Your task to perform on an android device: set default search engine in the chrome app Image 0: 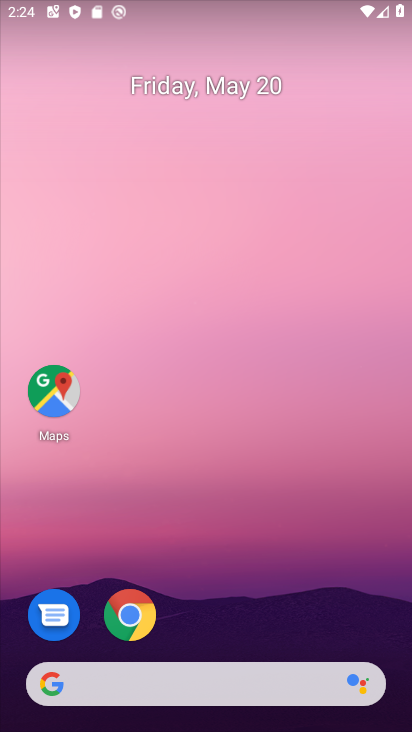
Step 0: drag from (280, 581) to (211, 221)
Your task to perform on an android device: set default search engine in the chrome app Image 1: 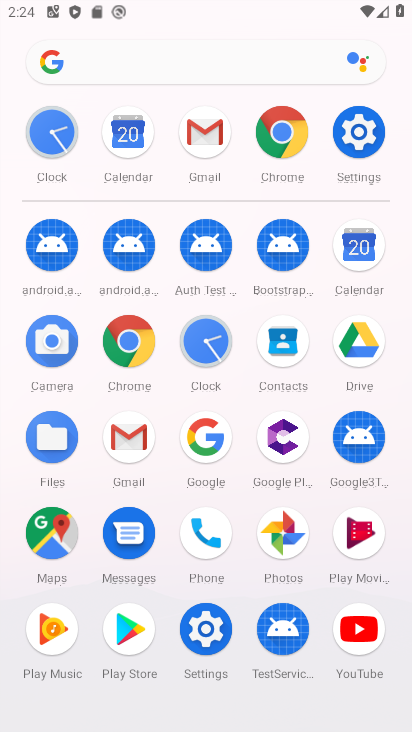
Step 1: click (216, 324)
Your task to perform on an android device: set default search engine in the chrome app Image 2: 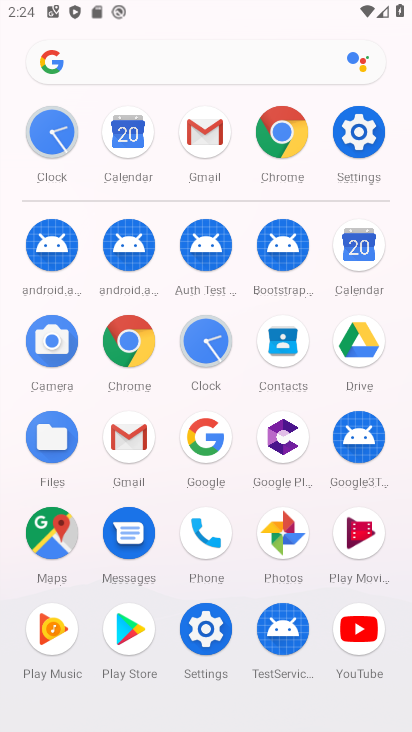
Step 2: click (215, 349)
Your task to perform on an android device: set default search engine in the chrome app Image 3: 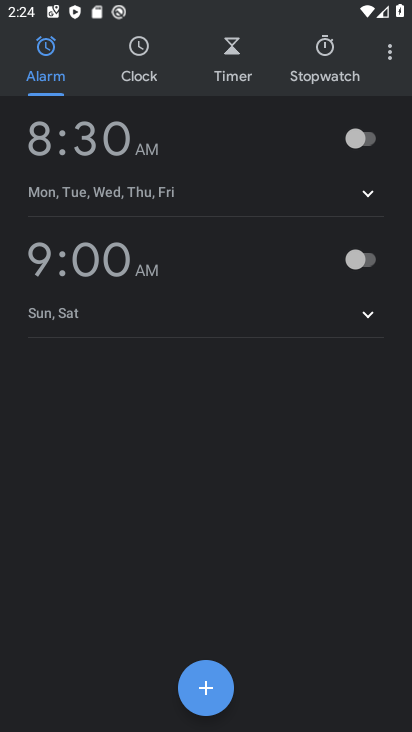
Step 3: click (375, 53)
Your task to perform on an android device: set default search engine in the chrome app Image 4: 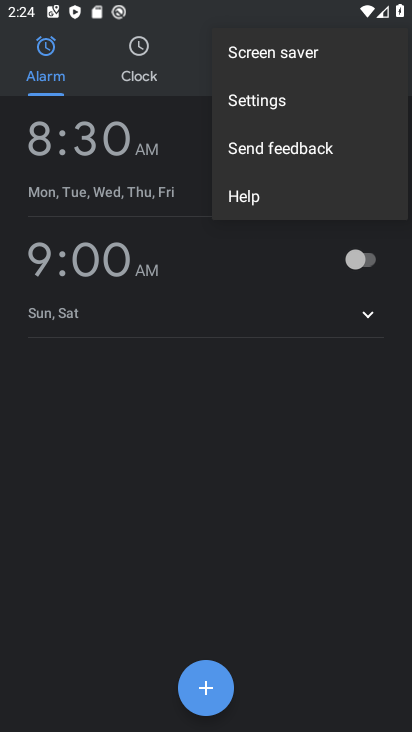
Step 4: click (247, 84)
Your task to perform on an android device: set default search engine in the chrome app Image 5: 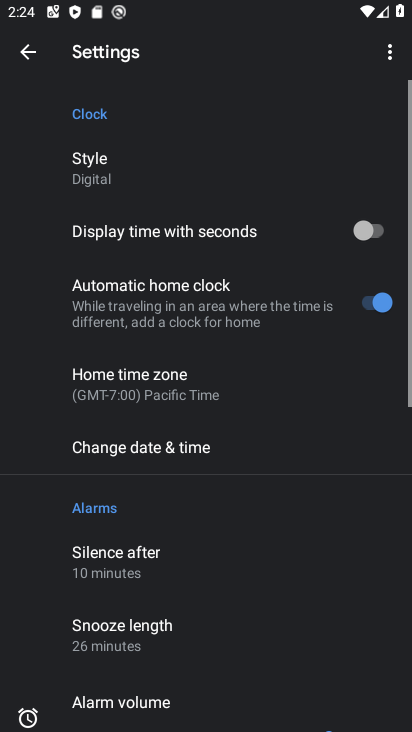
Step 5: drag from (134, 102) to (153, 648)
Your task to perform on an android device: set default search engine in the chrome app Image 6: 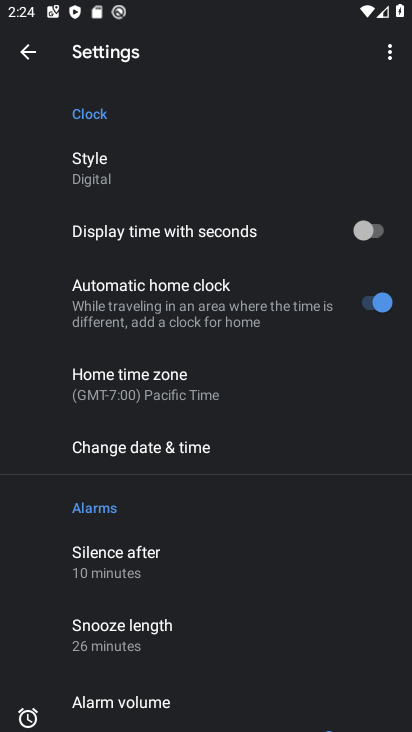
Step 6: click (31, 46)
Your task to perform on an android device: set default search engine in the chrome app Image 7: 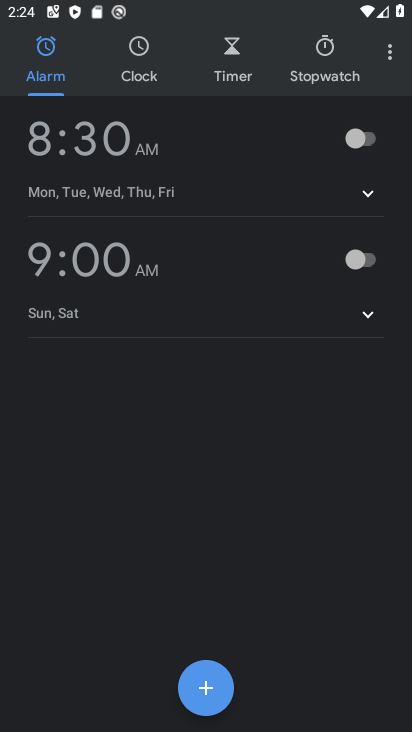
Step 7: press home button
Your task to perform on an android device: set default search engine in the chrome app Image 8: 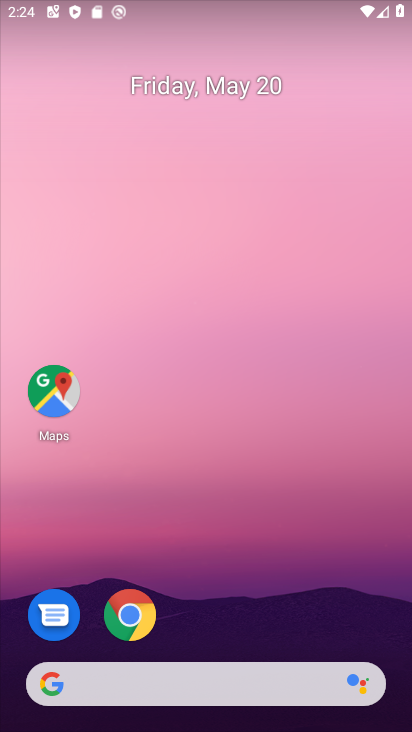
Step 8: click (120, 613)
Your task to perform on an android device: set default search engine in the chrome app Image 9: 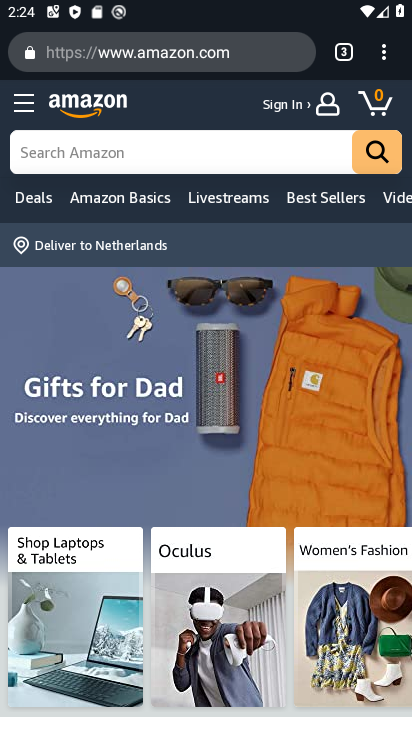
Step 9: click (393, 52)
Your task to perform on an android device: set default search engine in the chrome app Image 10: 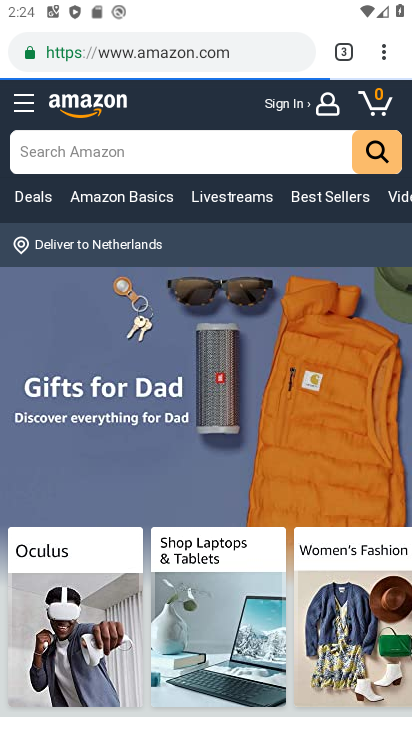
Step 10: click (375, 56)
Your task to perform on an android device: set default search engine in the chrome app Image 11: 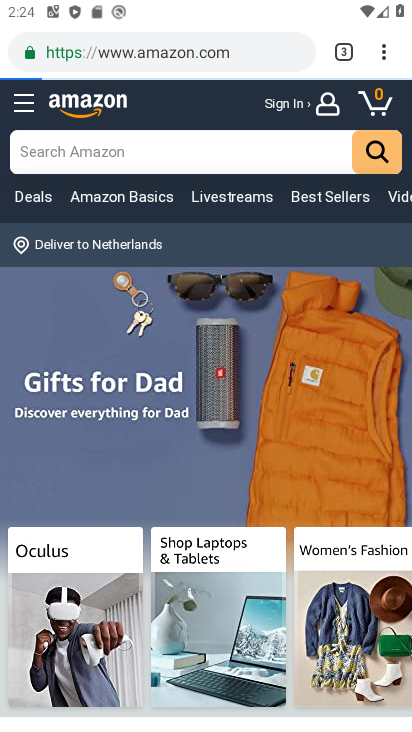
Step 11: click (375, 56)
Your task to perform on an android device: set default search engine in the chrome app Image 12: 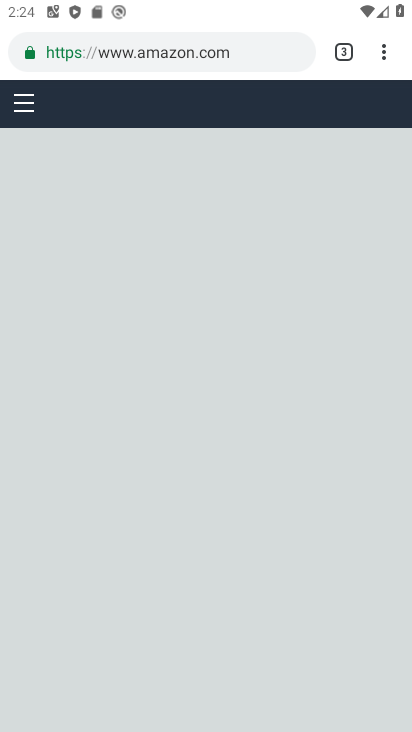
Step 12: click (387, 43)
Your task to perform on an android device: set default search engine in the chrome app Image 13: 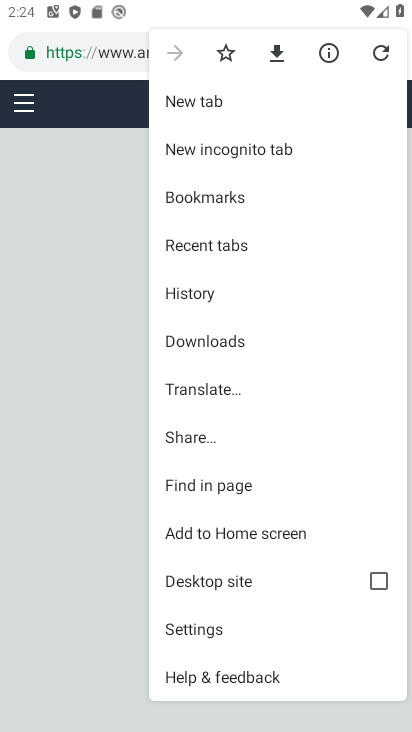
Step 13: click (235, 621)
Your task to perform on an android device: set default search engine in the chrome app Image 14: 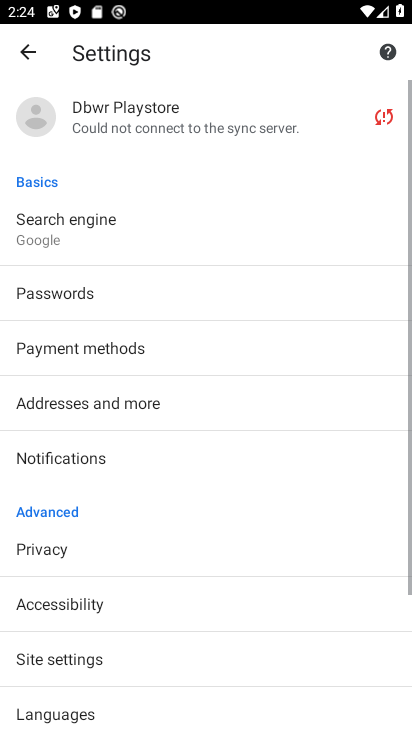
Step 14: click (108, 228)
Your task to perform on an android device: set default search engine in the chrome app Image 15: 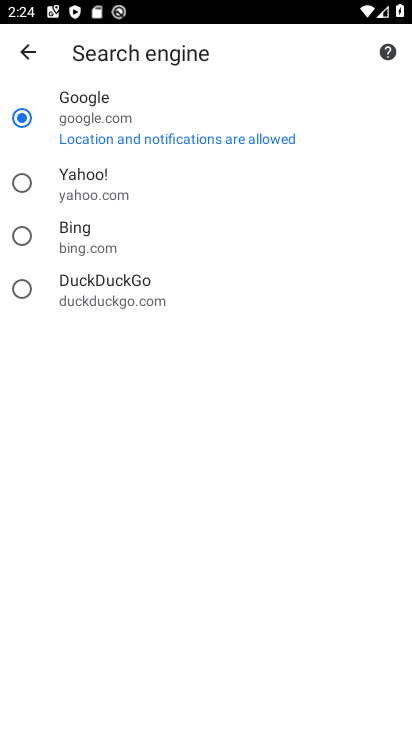
Step 15: click (94, 249)
Your task to perform on an android device: set default search engine in the chrome app Image 16: 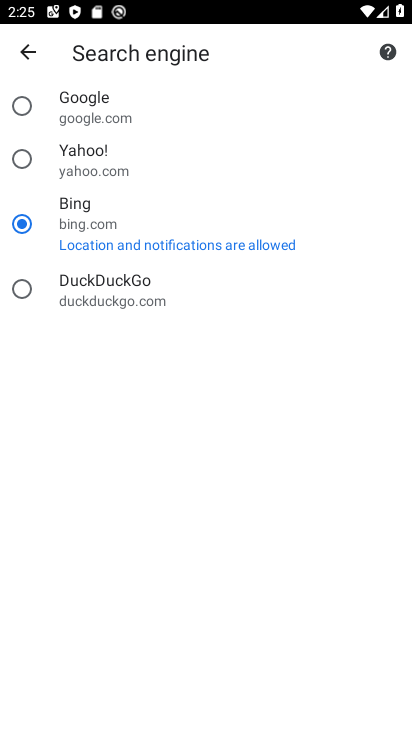
Step 16: task complete